Your task to perform on an android device: delete a single message in the gmail app Image 0: 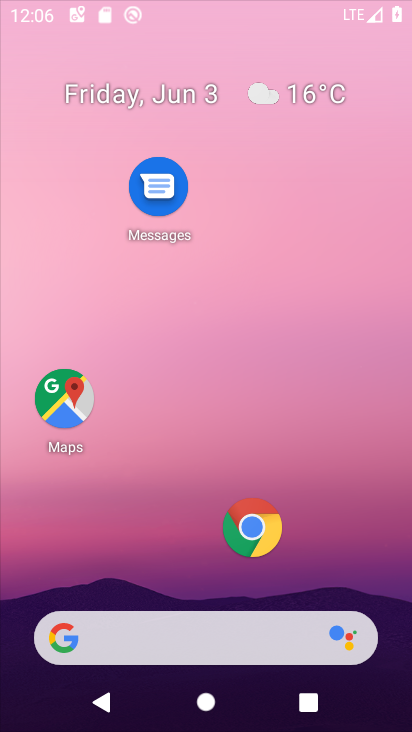
Step 0: press home button
Your task to perform on an android device: delete a single message in the gmail app Image 1: 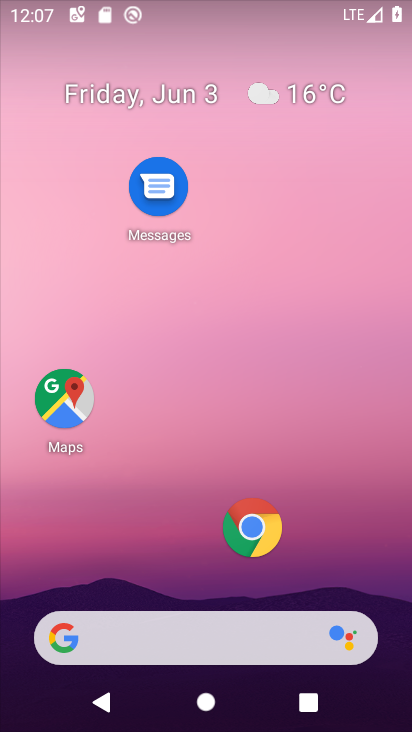
Step 1: drag from (214, 580) to (251, 2)
Your task to perform on an android device: delete a single message in the gmail app Image 2: 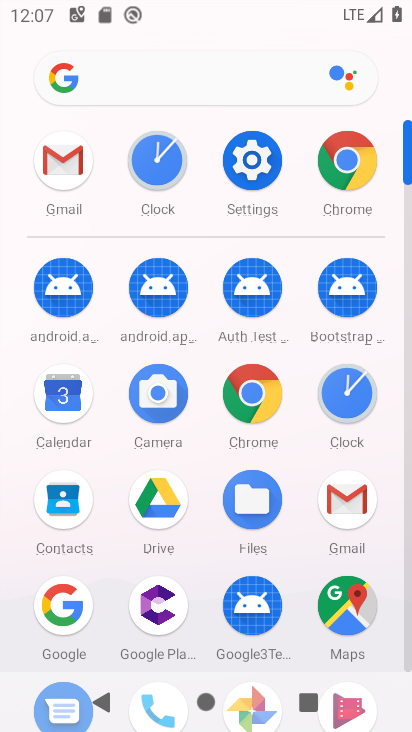
Step 2: click (58, 151)
Your task to perform on an android device: delete a single message in the gmail app Image 3: 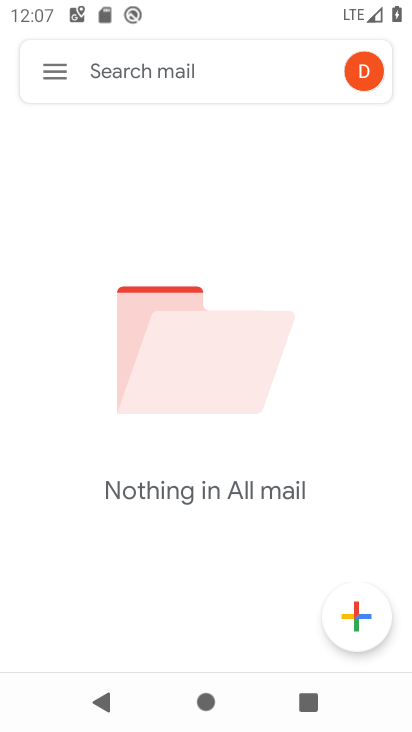
Step 3: task complete